Your task to perform on an android device: open app "File Manager" Image 0: 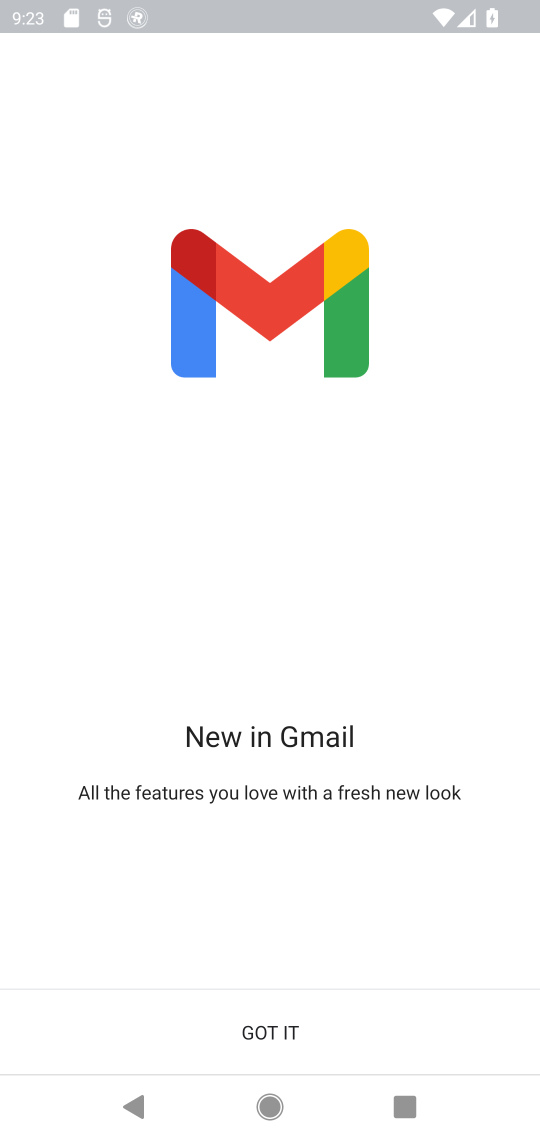
Step 0: press home button
Your task to perform on an android device: open app "File Manager" Image 1: 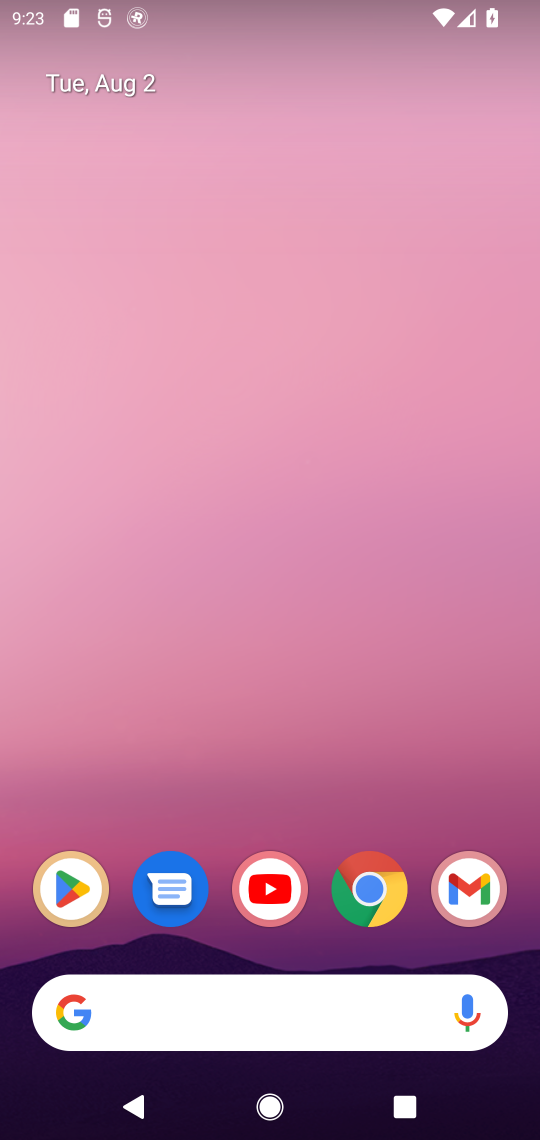
Step 1: click (85, 887)
Your task to perform on an android device: open app "File Manager" Image 2: 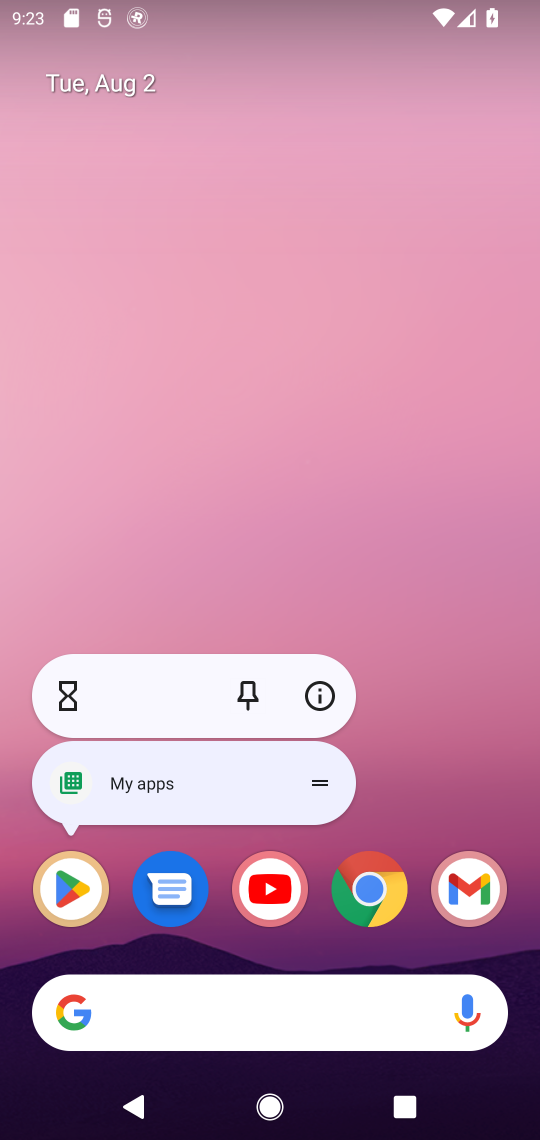
Step 2: click (68, 903)
Your task to perform on an android device: open app "File Manager" Image 3: 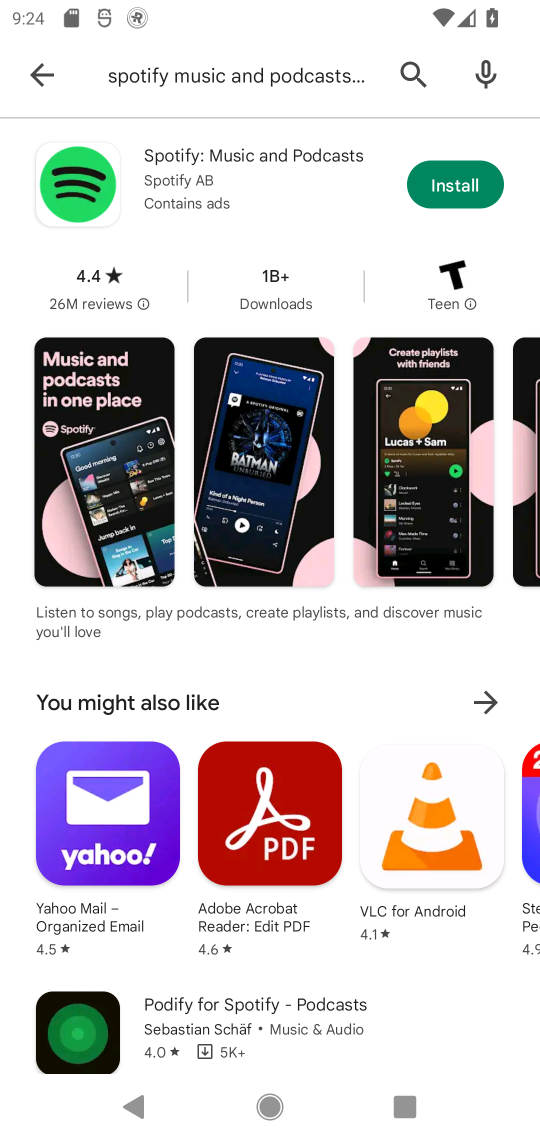
Step 3: click (405, 69)
Your task to perform on an android device: open app "File Manager" Image 4: 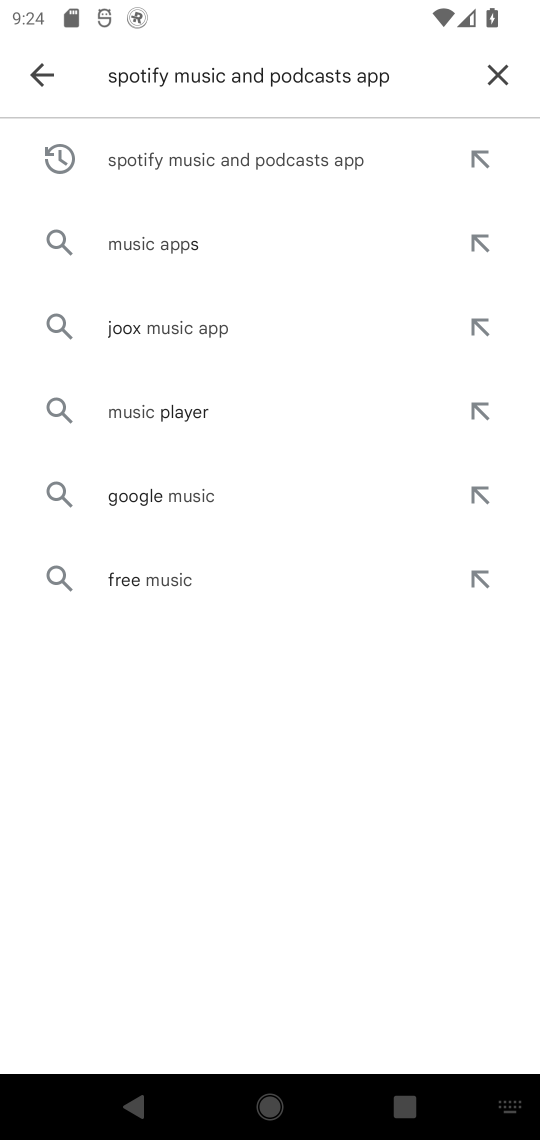
Step 4: click (484, 62)
Your task to perform on an android device: open app "File Manager" Image 5: 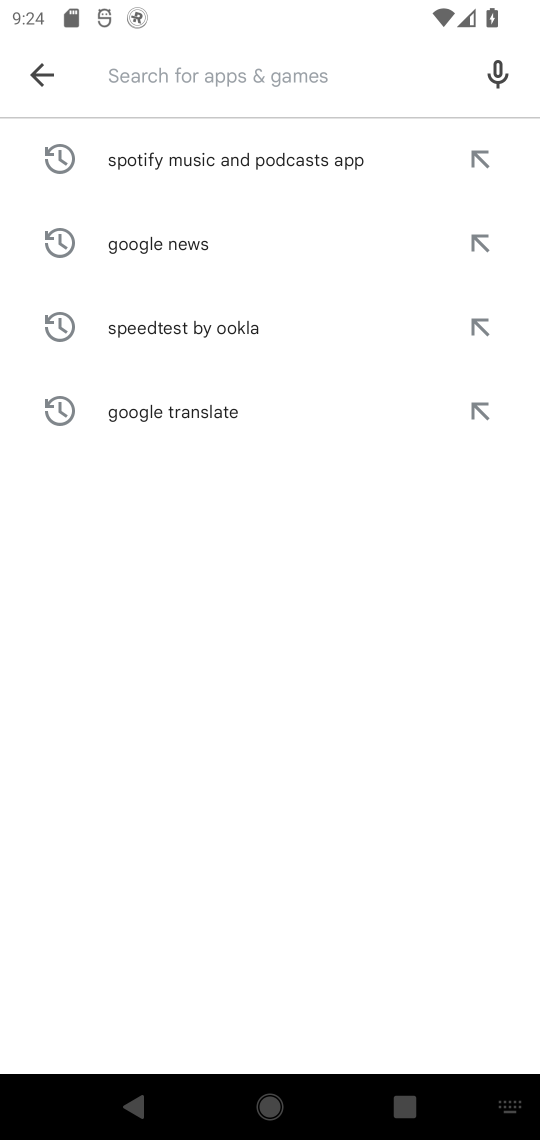
Step 5: type "File Manager"
Your task to perform on an android device: open app "File Manager" Image 6: 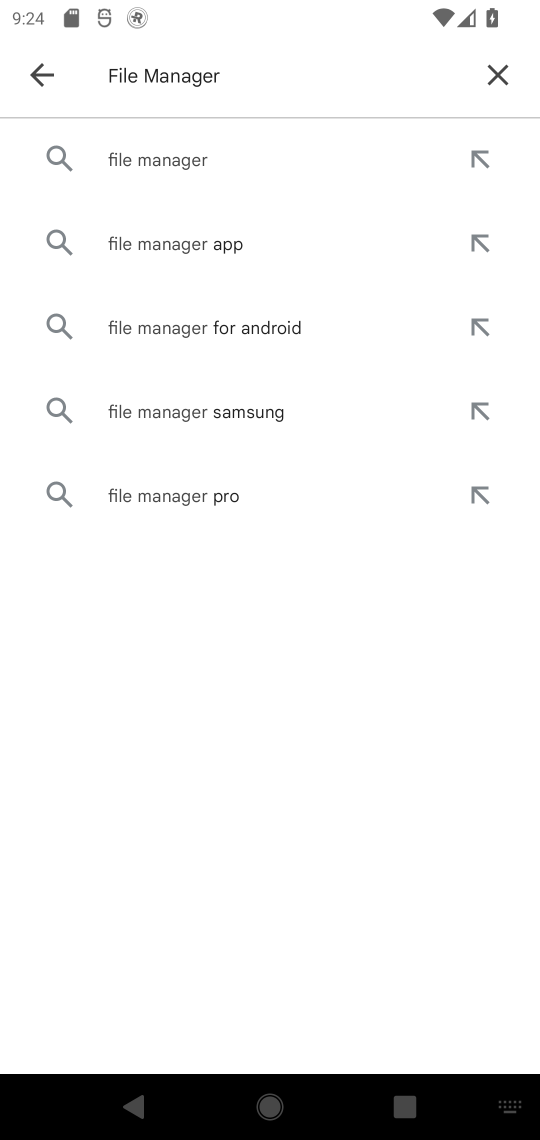
Step 6: click (168, 160)
Your task to perform on an android device: open app "File Manager" Image 7: 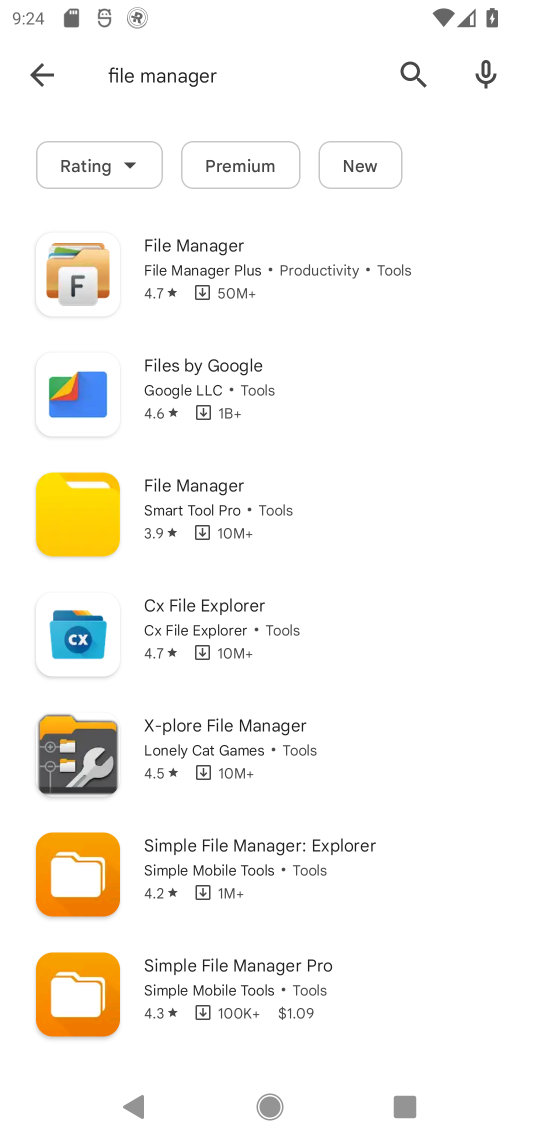
Step 7: click (247, 267)
Your task to perform on an android device: open app "File Manager" Image 8: 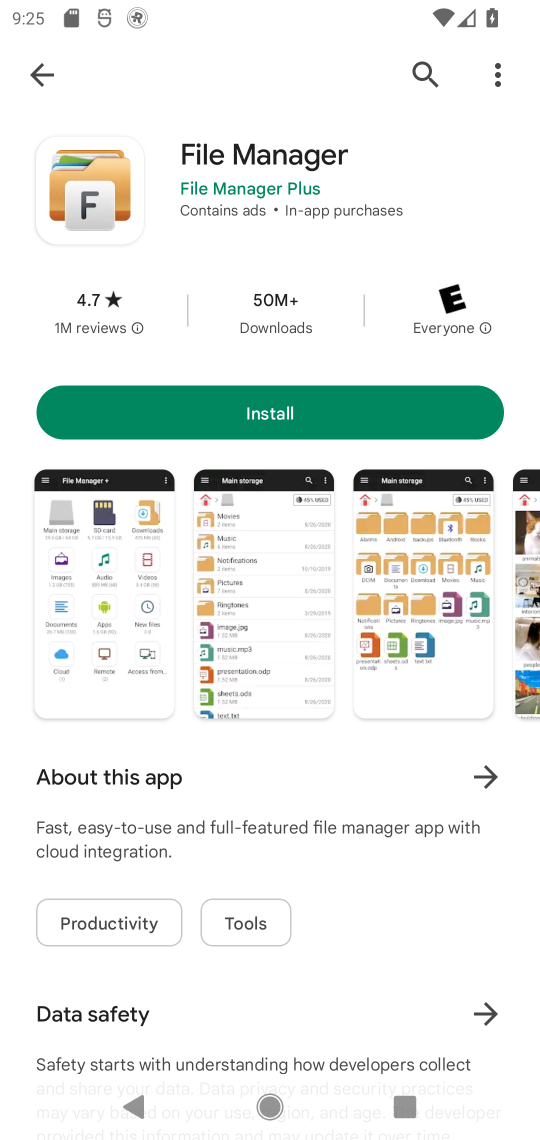
Step 8: task complete